Your task to perform on an android device: Open Google Chrome Image 0: 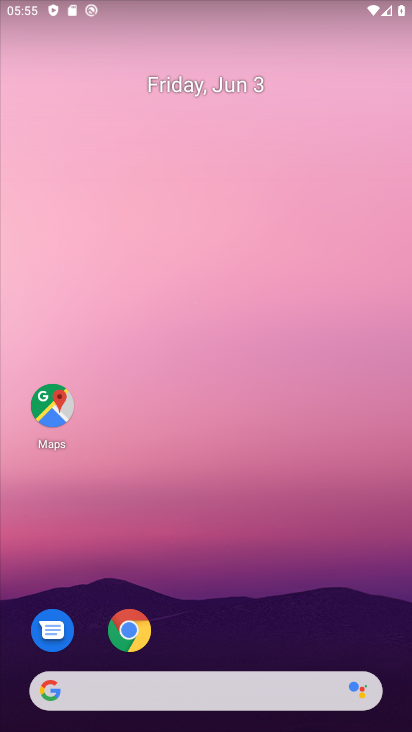
Step 0: click (141, 629)
Your task to perform on an android device: Open Google Chrome Image 1: 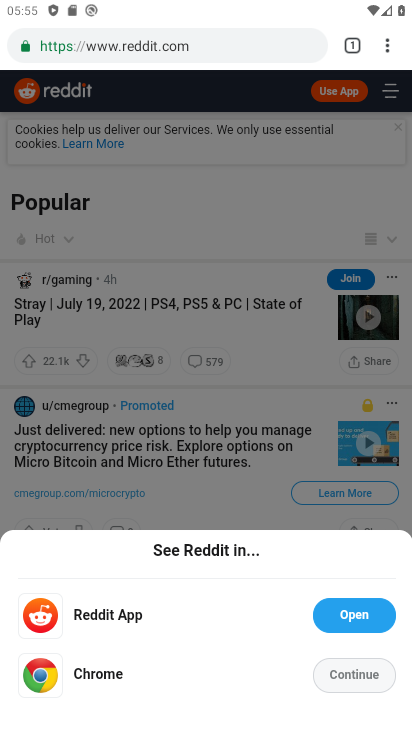
Step 1: task complete